Your task to perform on an android device: Open display settings Image 0: 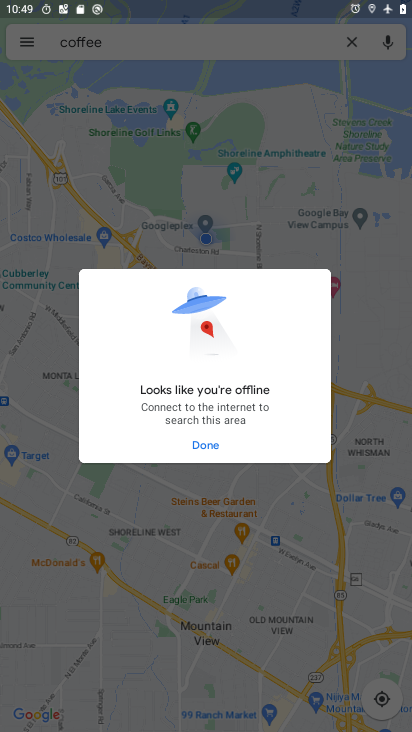
Step 0: press home button
Your task to perform on an android device: Open display settings Image 1: 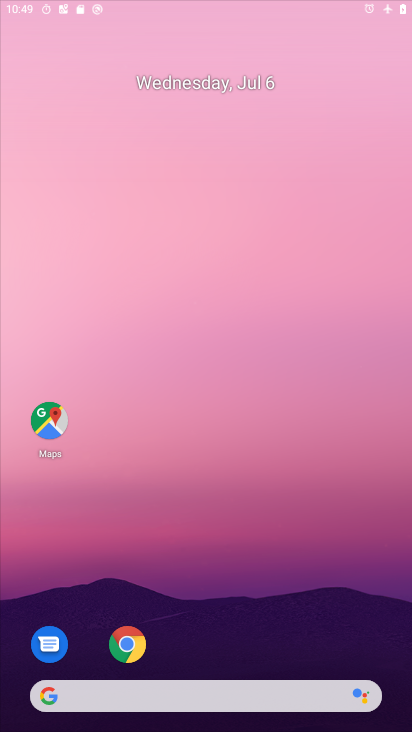
Step 1: drag from (245, 637) to (279, 220)
Your task to perform on an android device: Open display settings Image 2: 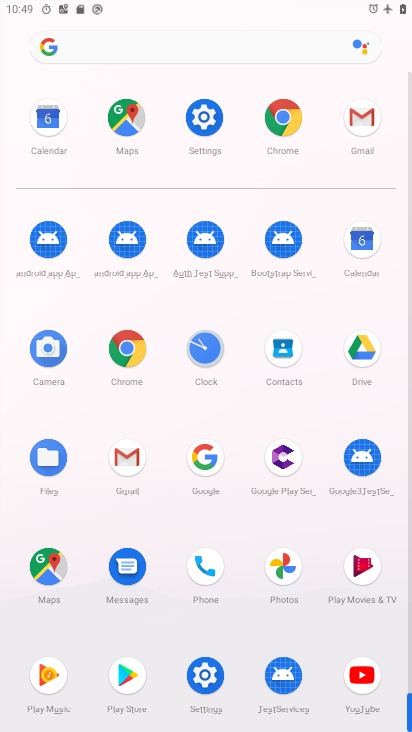
Step 2: click (215, 140)
Your task to perform on an android device: Open display settings Image 3: 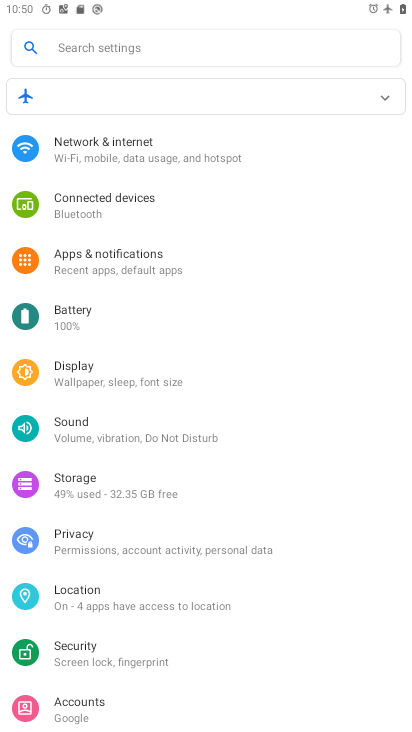
Step 3: click (133, 368)
Your task to perform on an android device: Open display settings Image 4: 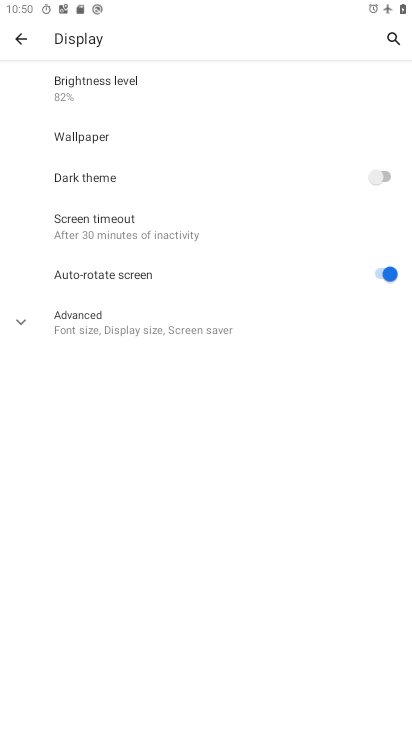
Step 4: click (87, 317)
Your task to perform on an android device: Open display settings Image 5: 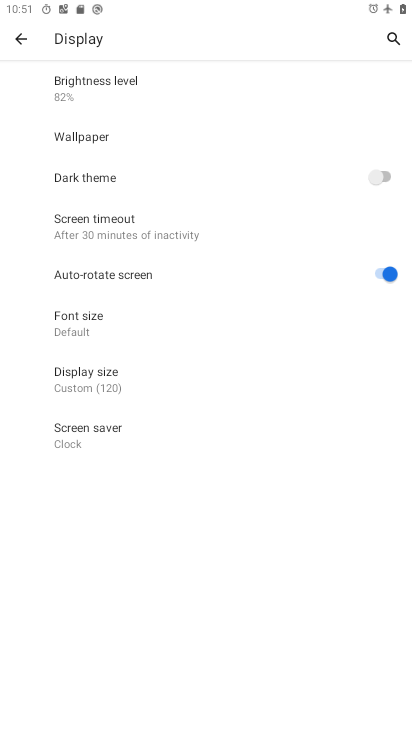
Step 5: task complete